Your task to perform on an android device: stop showing notifications on the lock screen Image 0: 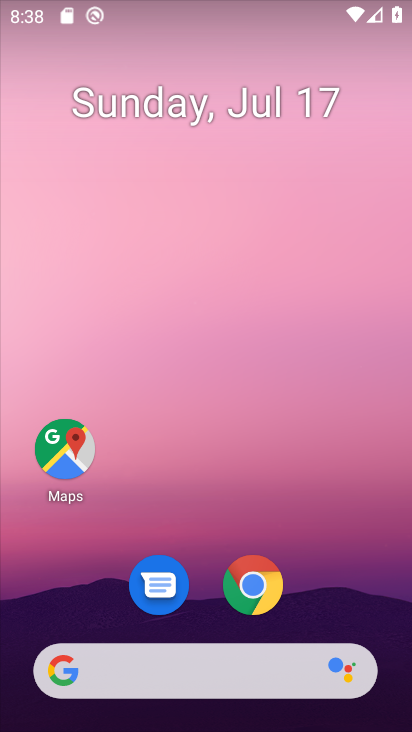
Step 0: drag from (331, 438) to (313, 54)
Your task to perform on an android device: stop showing notifications on the lock screen Image 1: 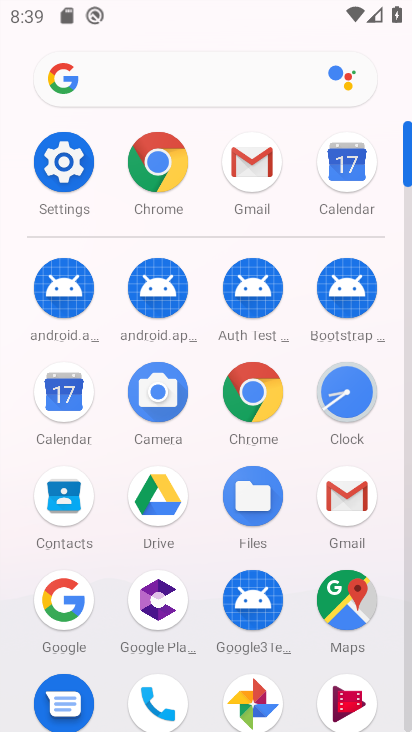
Step 1: drag from (294, 451) to (274, 249)
Your task to perform on an android device: stop showing notifications on the lock screen Image 2: 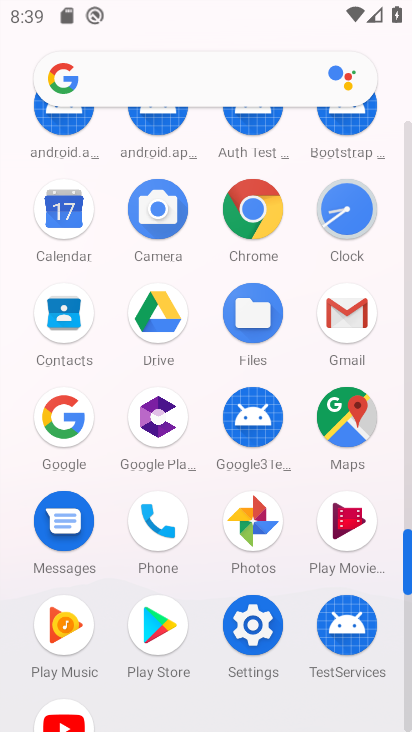
Step 2: click (260, 623)
Your task to perform on an android device: stop showing notifications on the lock screen Image 3: 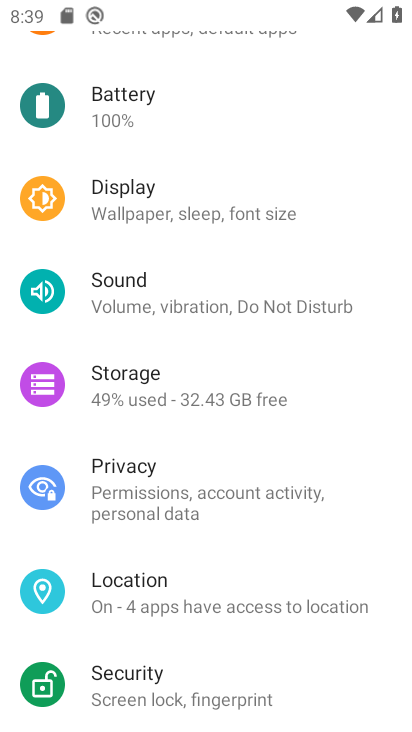
Step 3: drag from (225, 166) to (208, 607)
Your task to perform on an android device: stop showing notifications on the lock screen Image 4: 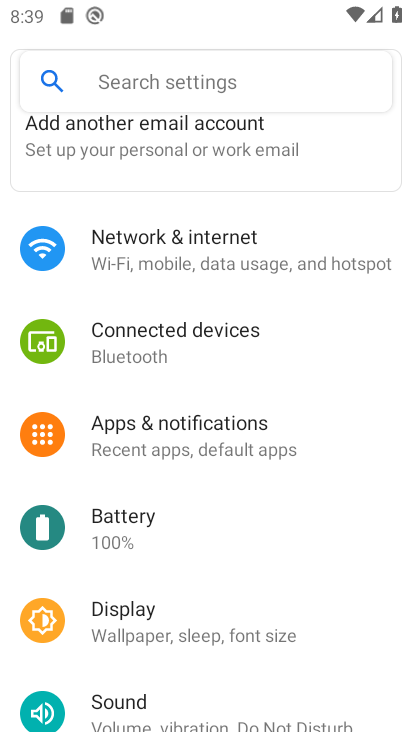
Step 4: click (218, 429)
Your task to perform on an android device: stop showing notifications on the lock screen Image 5: 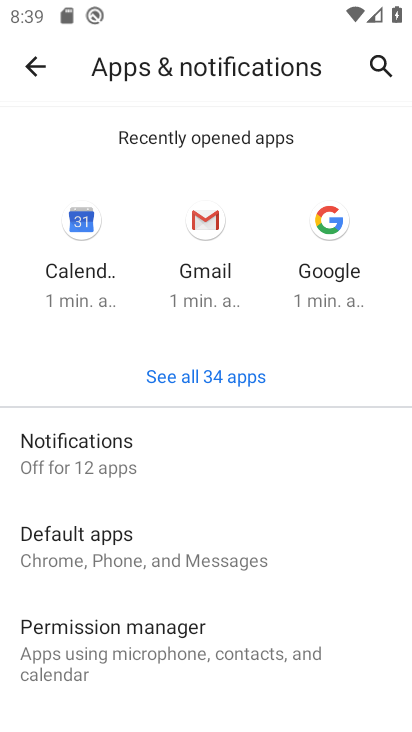
Step 5: click (122, 451)
Your task to perform on an android device: stop showing notifications on the lock screen Image 6: 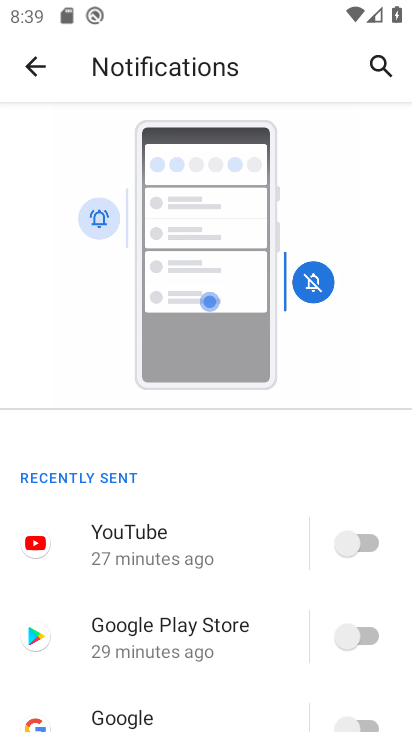
Step 6: drag from (258, 618) to (228, 161)
Your task to perform on an android device: stop showing notifications on the lock screen Image 7: 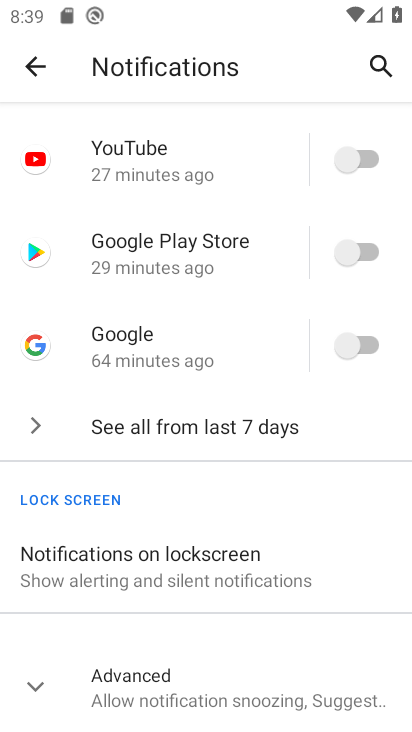
Step 7: click (220, 563)
Your task to perform on an android device: stop showing notifications on the lock screen Image 8: 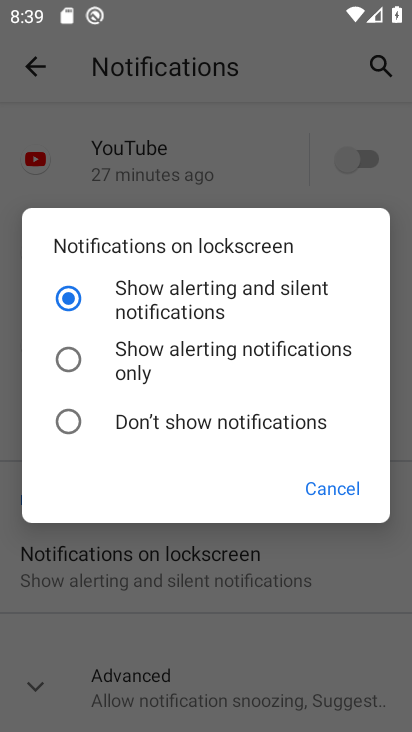
Step 8: click (76, 417)
Your task to perform on an android device: stop showing notifications on the lock screen Image 9: 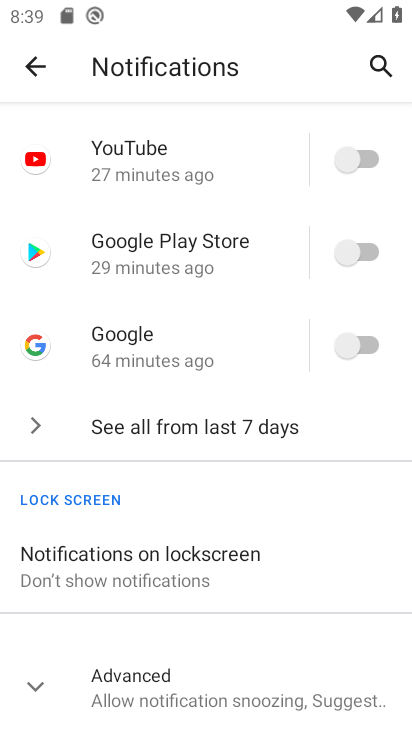
Step 9: task complete